Your task to perform on an android device: uninstall "Instagram" Image 0: 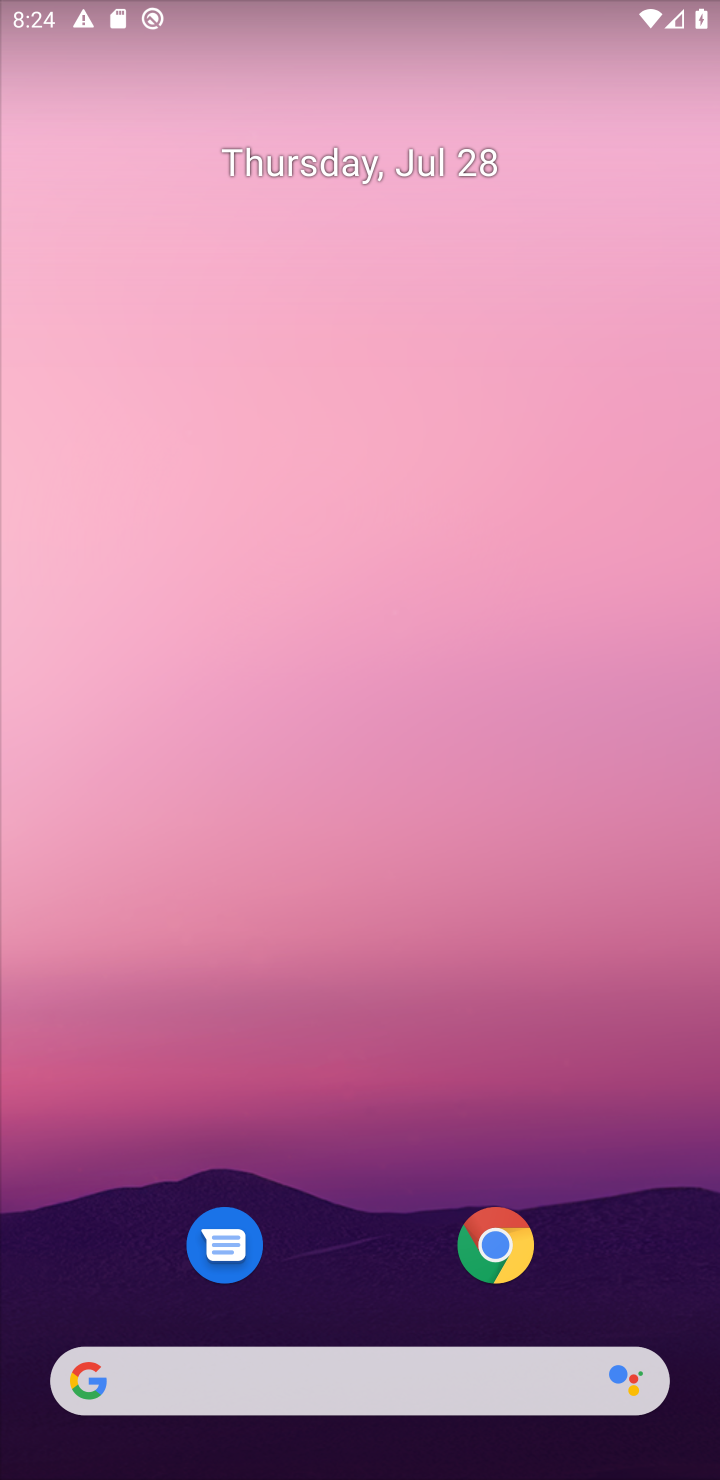
Step 0: drag from (378, 1243) to (310, 134)
Your task to perform on an android device: uninstall "Instagram" Image 1: 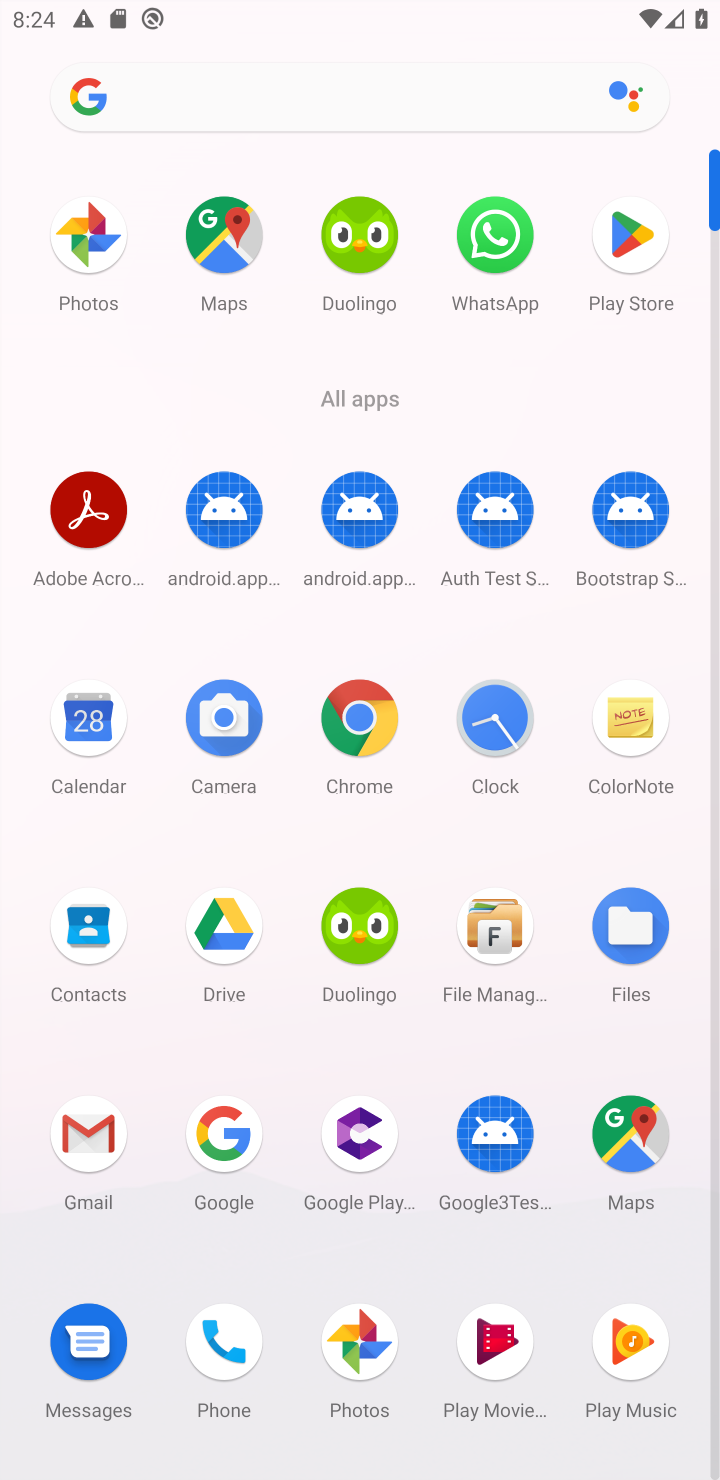
Step 1: click (633, 223)
Your task to perform on an android device: uninstall "Instagram" Image 2: 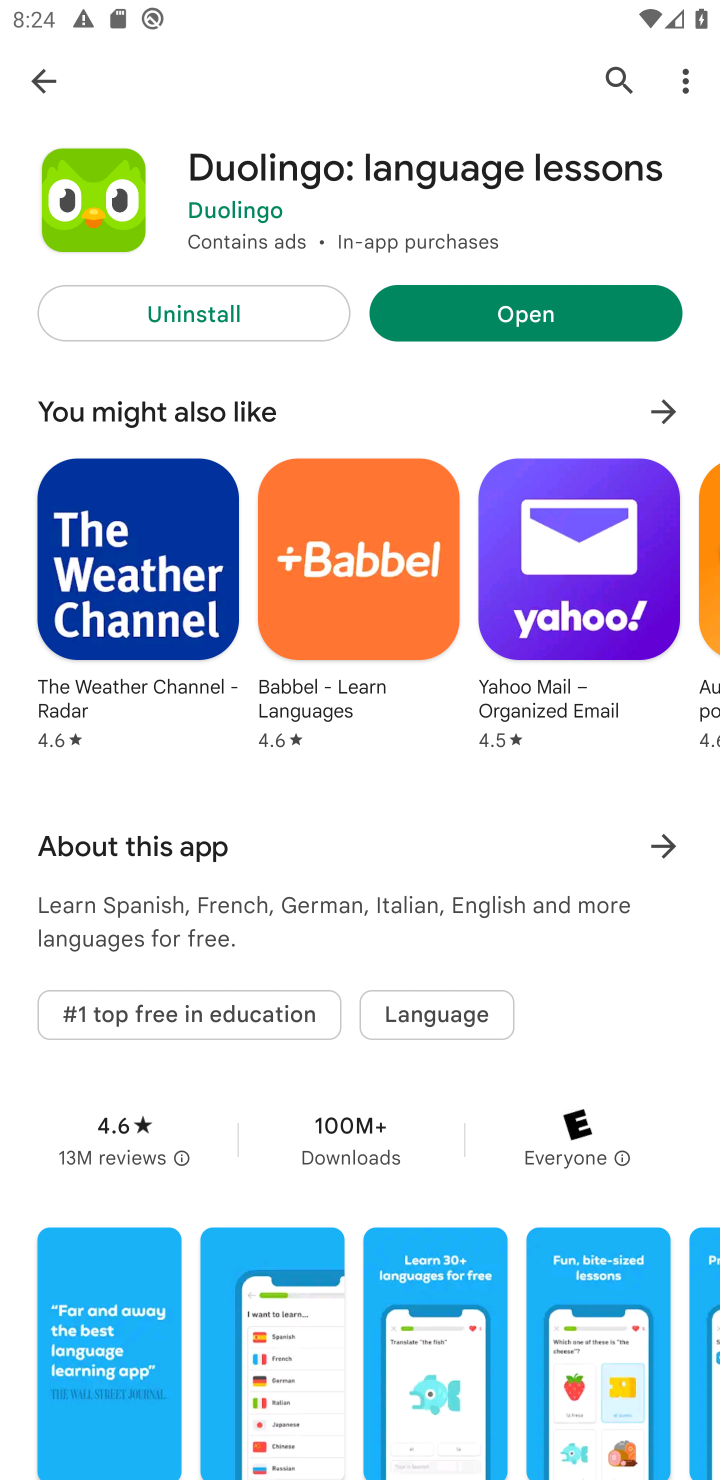
Step 2: click (619, 101)
Your task to perform on an android device: uninstall "Instagram" Image 3: 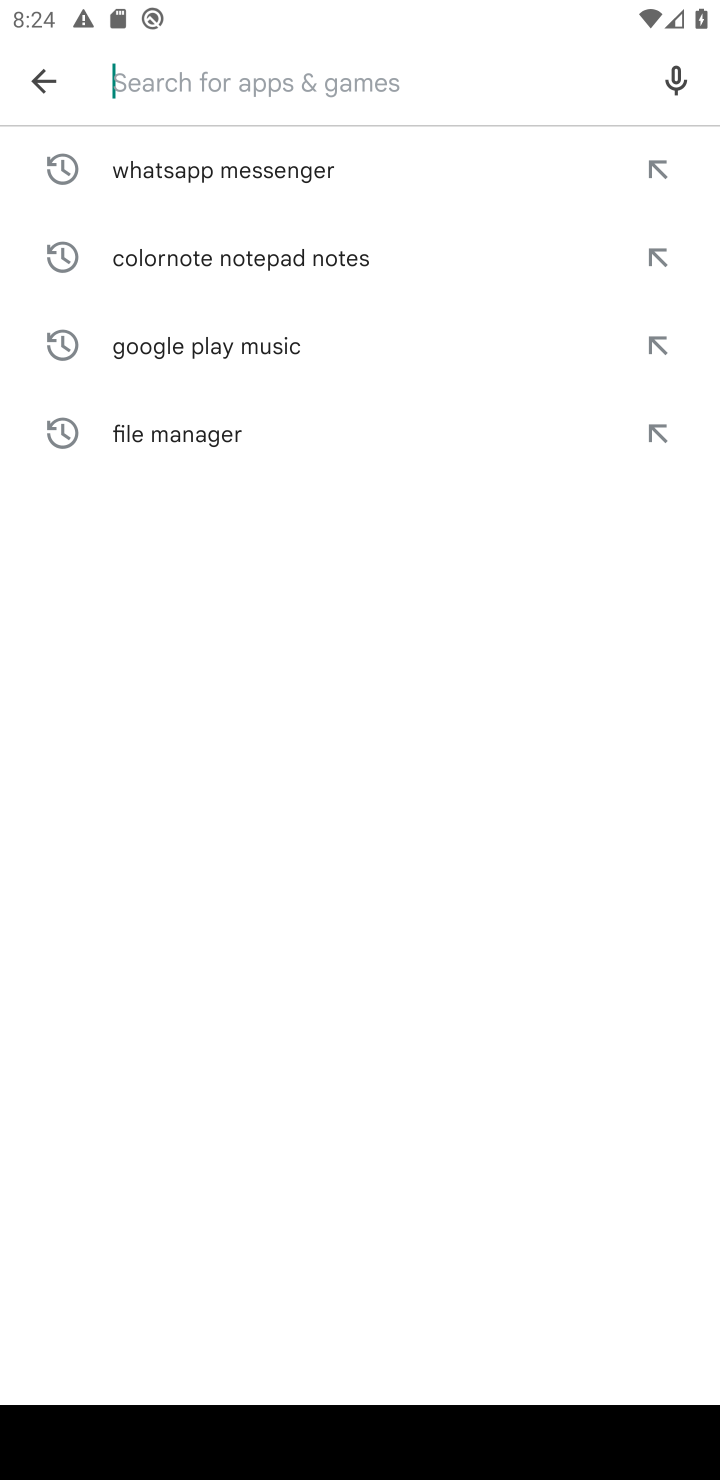
Step 3: click (469, 99)
Your task to perform on an android device: uninstall "Instagram" Image 4: 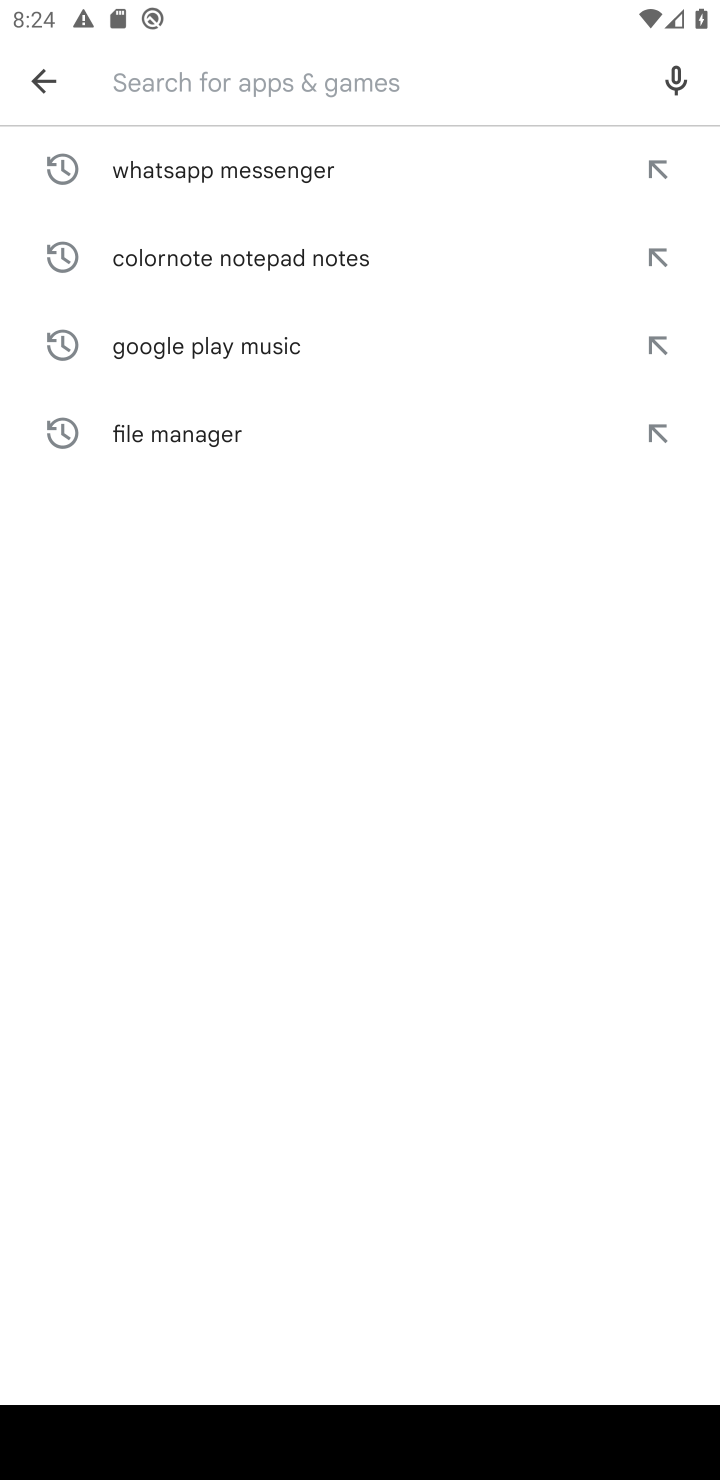
Step 4: type "instagram"
Your task to perform on an android device: uninstall "Instagram" Image 5: 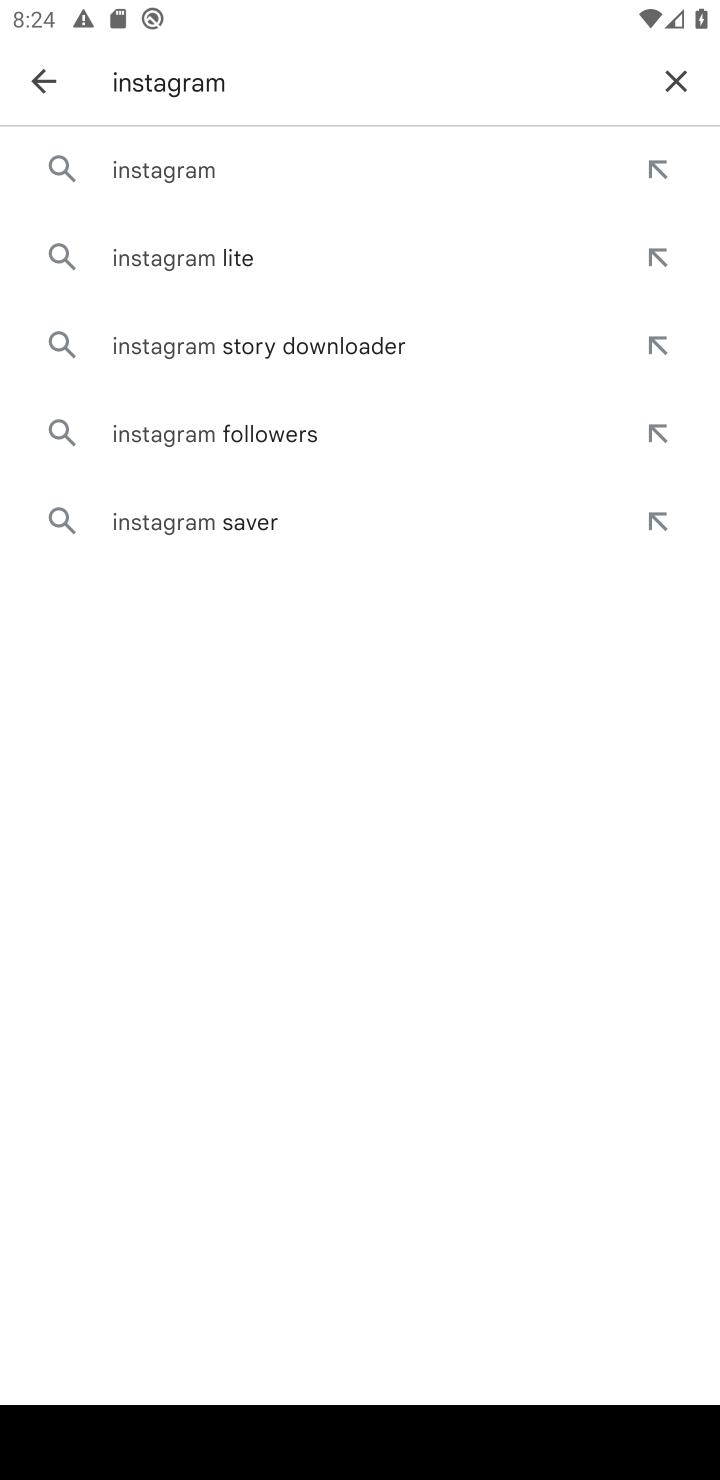
Step 5: click (174, 168)
Your task to perform on an android device: uninstall "Instagram" Image 6: 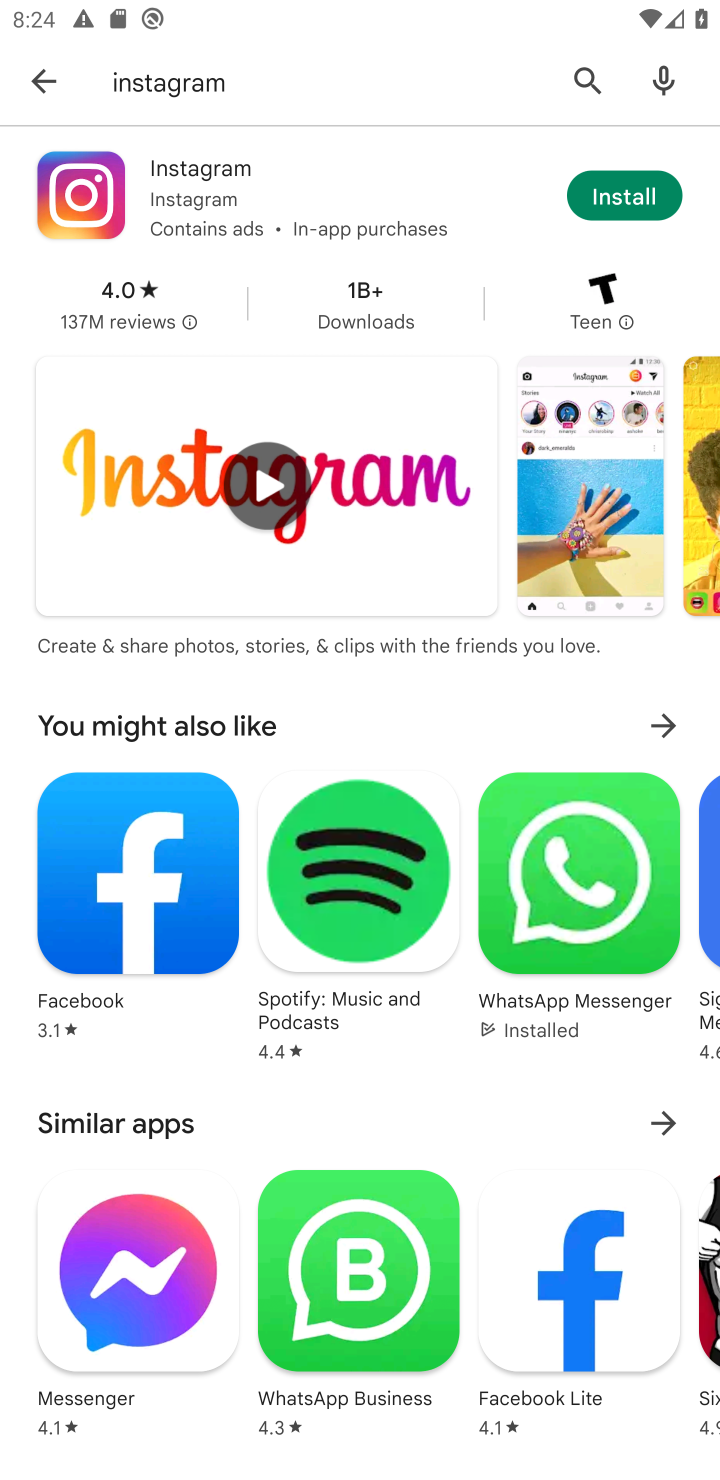
Step 6: click (325, 191)
Your task to perform on an android device: uninstall "Instagram" Image 7: 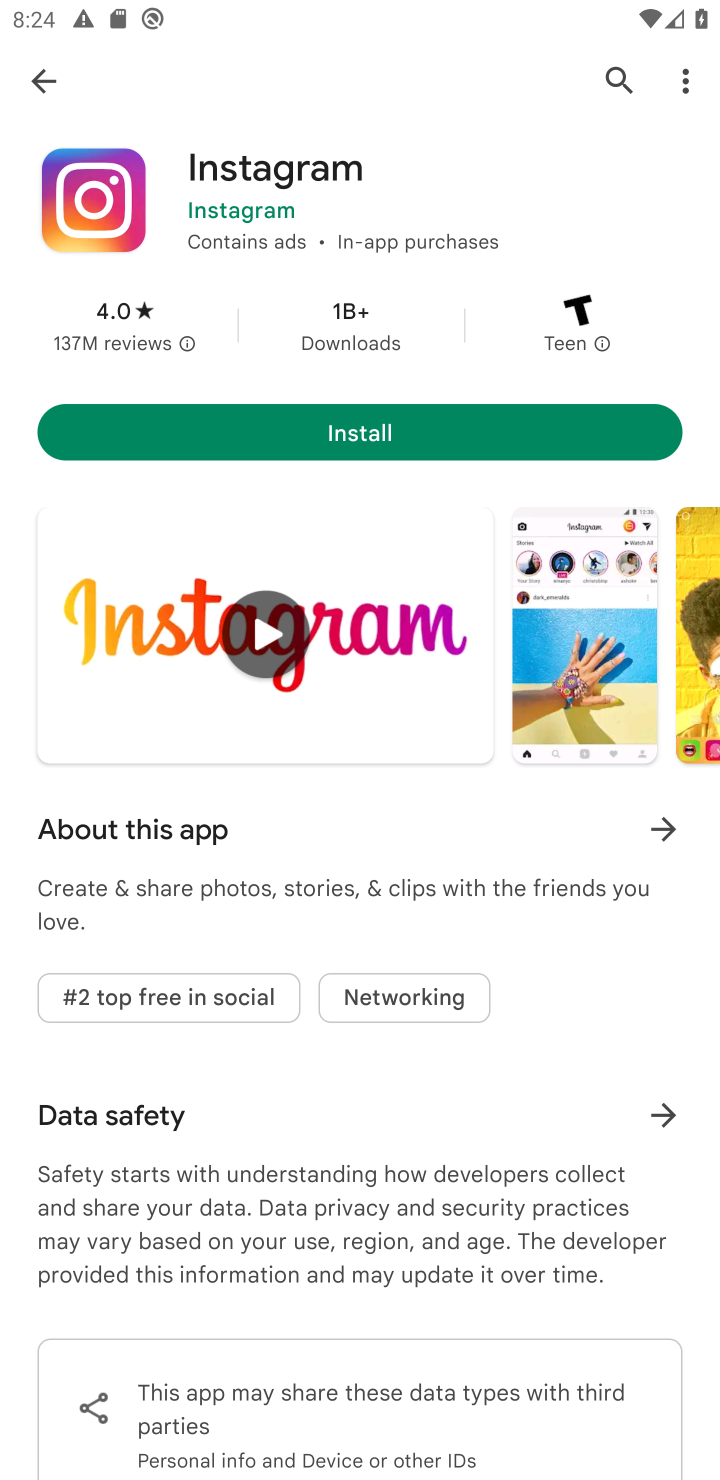
Step 7: task complete